Your task to perform on an android device: Go to eBay Image 0: 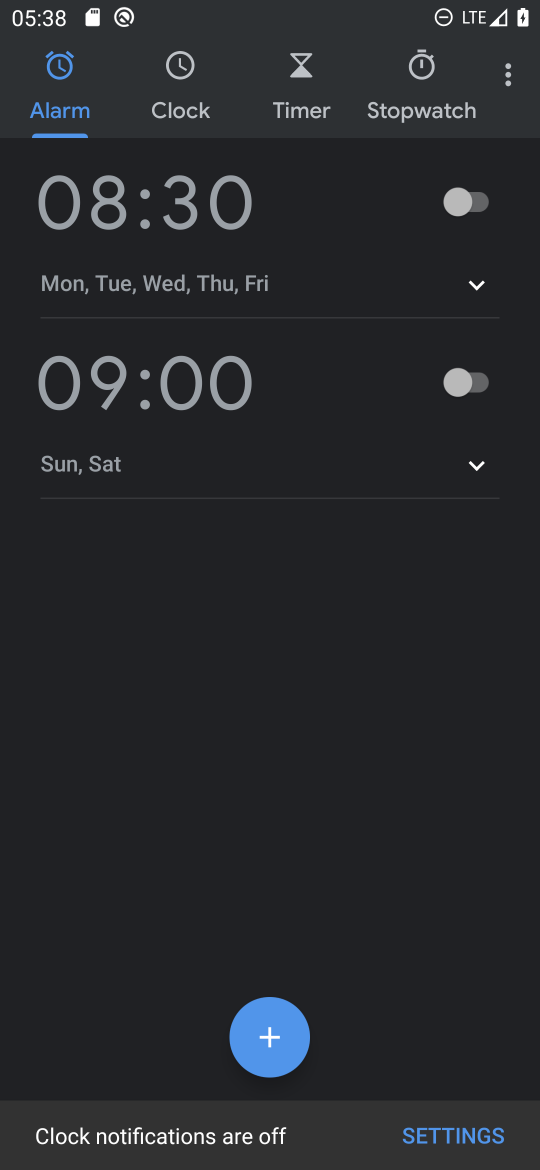
Step 0: press home button
Your task to perform on an android device: Go to eBay Image 1: 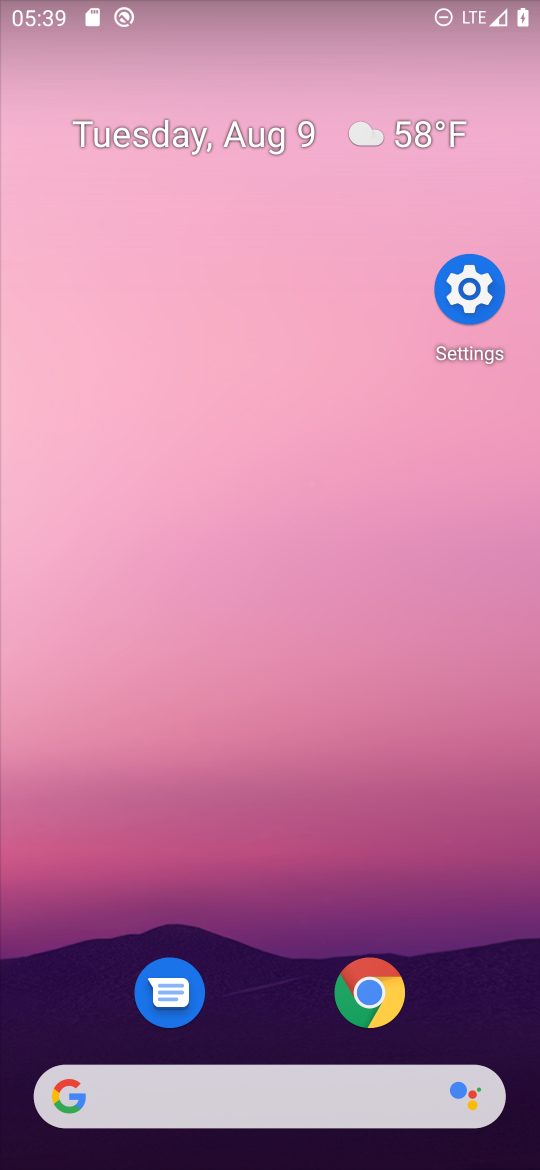
Step 1: drag from (127, 1058) to (54, 427)
Your task to perform on an android device: Go to eBay Image 2: 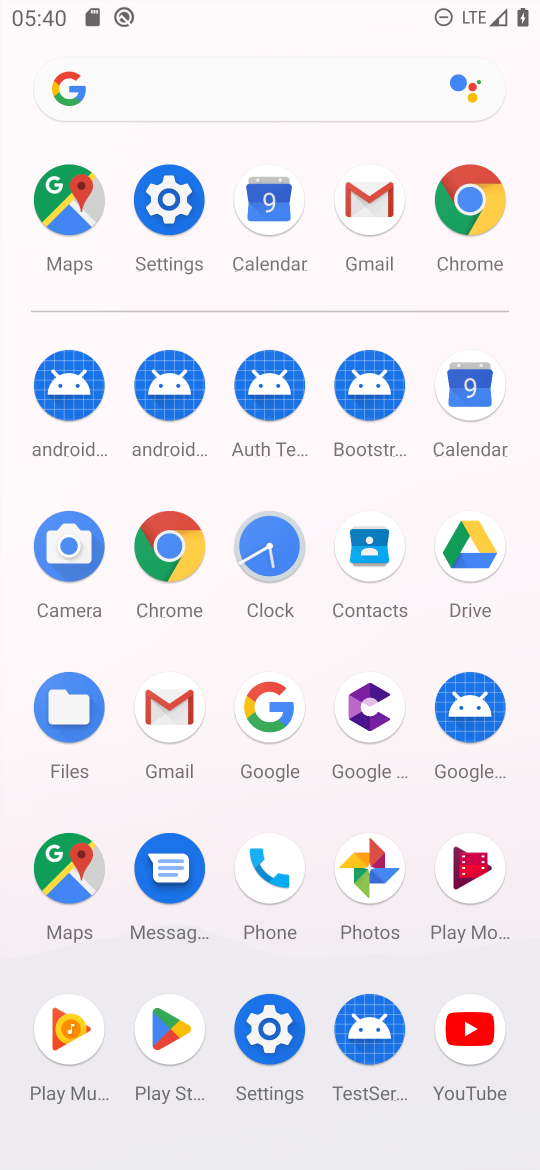
Step 2: click (160, 545)
Your task to perform on an android device: Go to eBay Image 3: 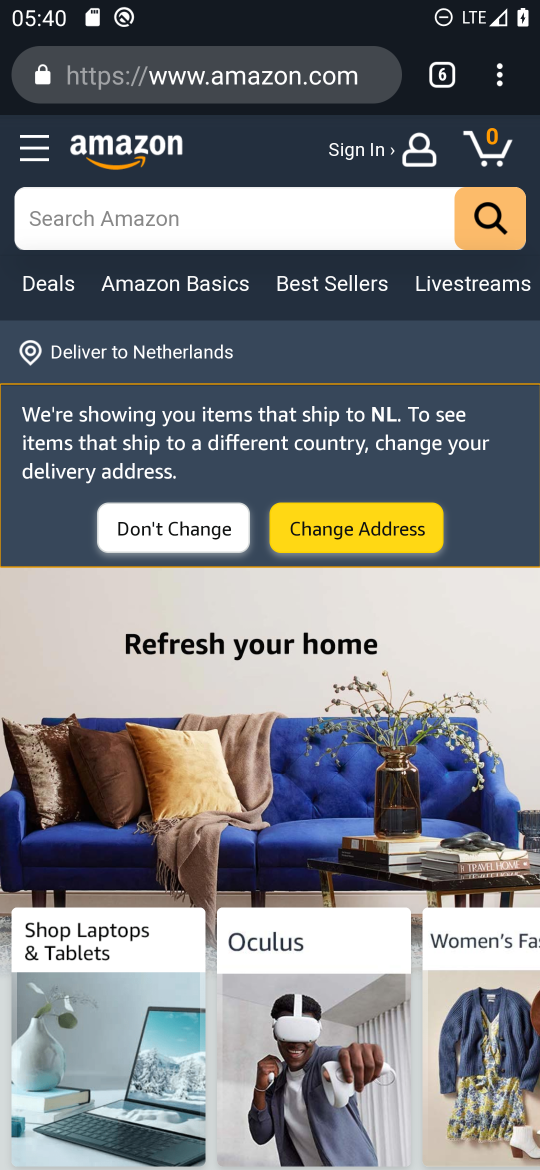
Step 3: task complete